Your task to perform on an android device: change notification settings in the gmail app Image 0: 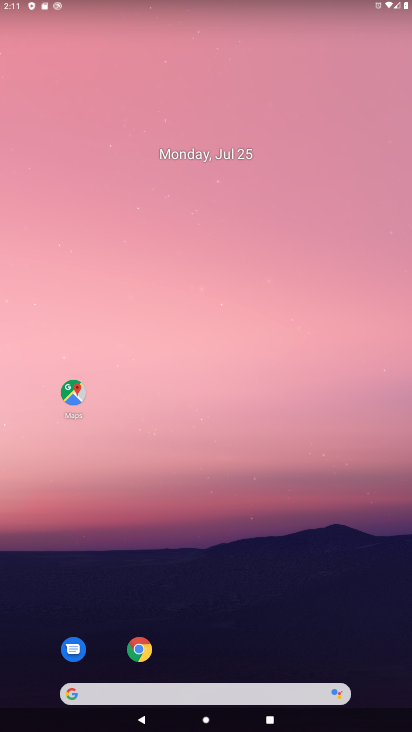
Step 0: drag from (390, 663) to (330, 205)
Your task to perform on an android device: change notification settings in the gmail app Image 1: 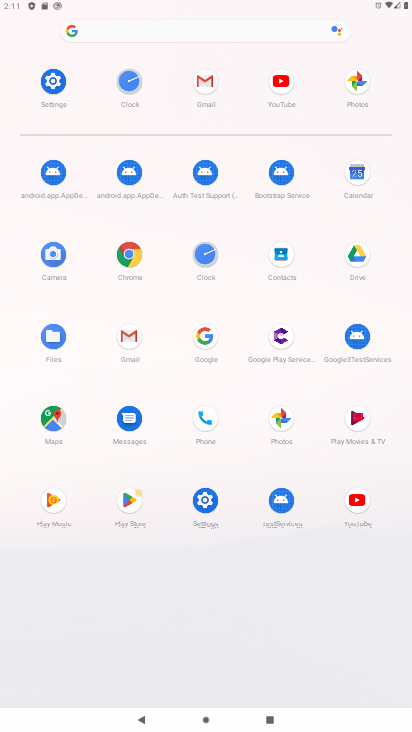
Step 1: click (127, 336)
Your task to perform on an android device: change notification settings in the gmail app Image 2: 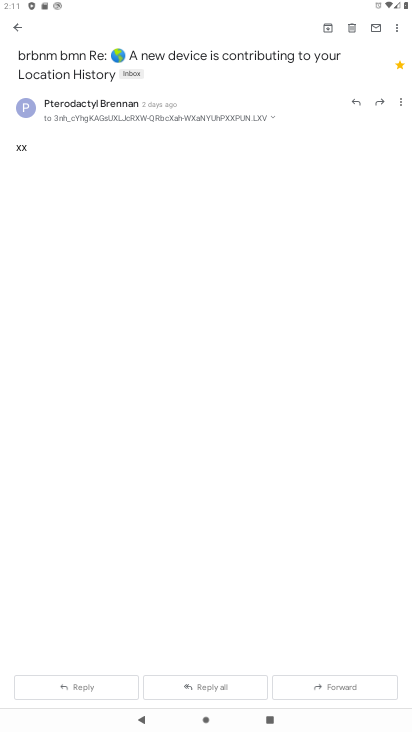
Step 2: press back button
Your task to perform on an android device: change notification settings in the gmail app Image 3: 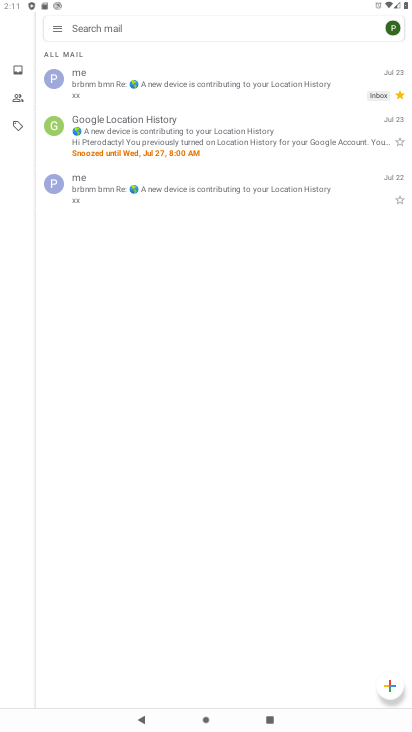
Step 3: click (58, 34)
Your task to perform on an android device: change notification settings in the gmail app Image 4: 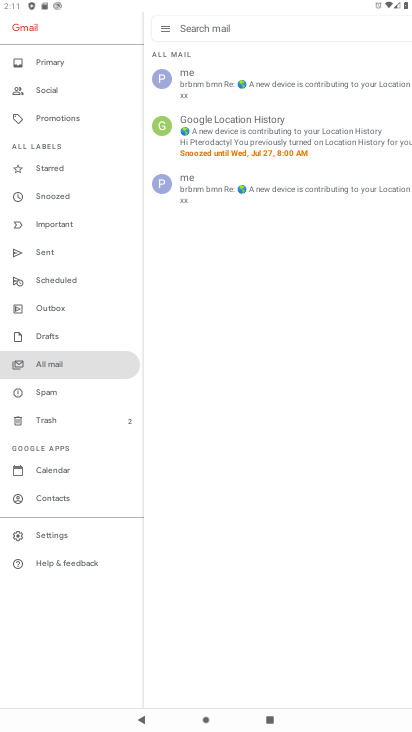
Step 4: click (43, 540)
Your task to perform on an android device: change notification settings in the gmail app Image 5: 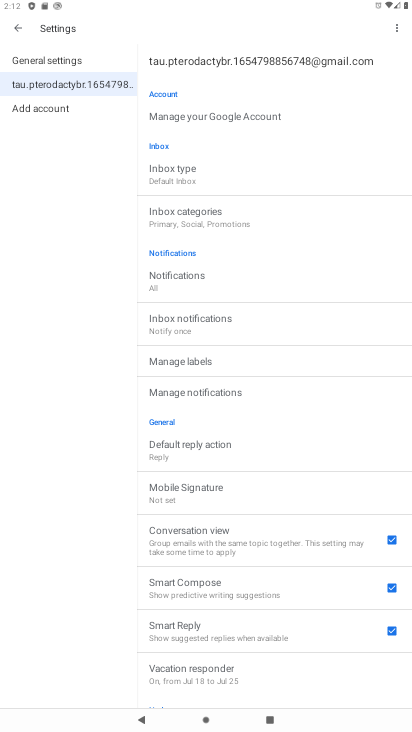
Step 5: click (195, 390)
Your task to perform on an android device: change notification settings in the gmail app Image 6: 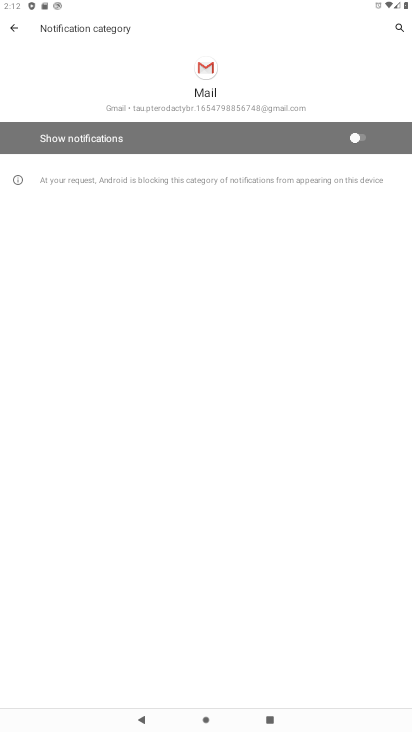
Step 6: click (362, 138)
Your task to perform on an android device: change notification settings in the gmail app Image 7: 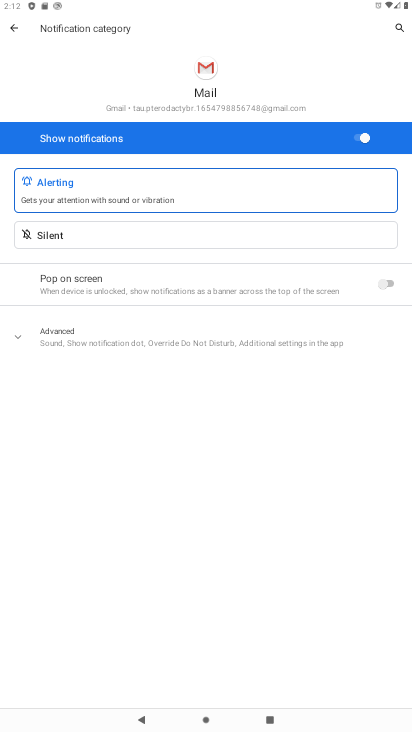
Step 7: task complete